Your task to perform on an android device: install app "Mercado Libre" Image 0: 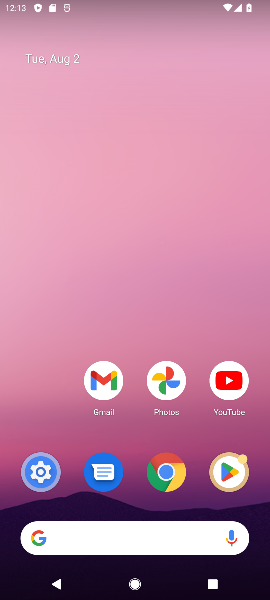
Step 0: click (232, 467)
Your task to perform on an android device: install app "Mercado Libre" Image 1: 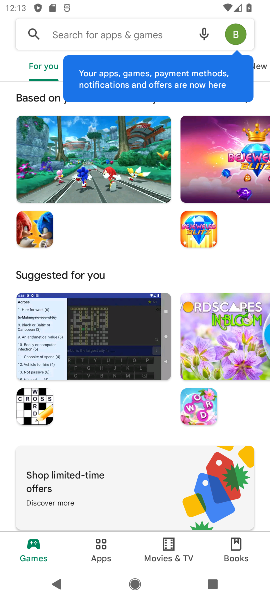
Step 1: click (88, 29)
Your task to perform on an android device: install app "Mercado Libre" Image 2: 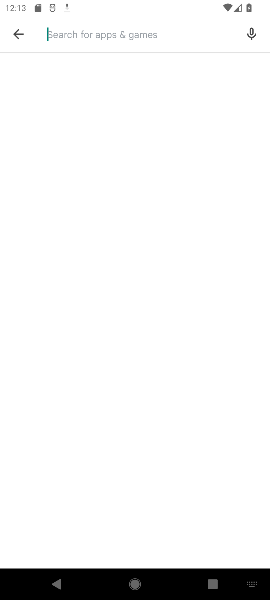
Step 2: type "mercado libre"
Your task to perform on an android device: install app "Mercado Libre" Image 3: 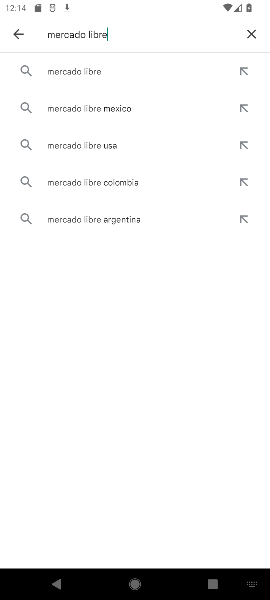
Step 3: click (56, 71)
Your task to perform on an android device: install app "Mercado Libre" Image 4: 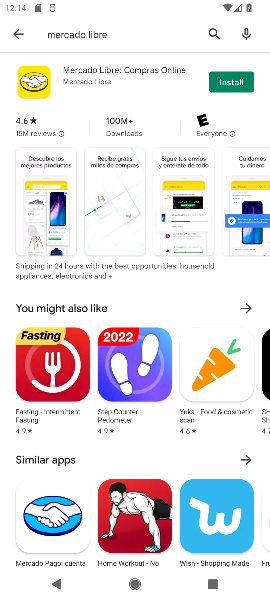
Step 4: click (106, 80)
Your task to perform on an android device: install app "Mercado Libre" Image 5: 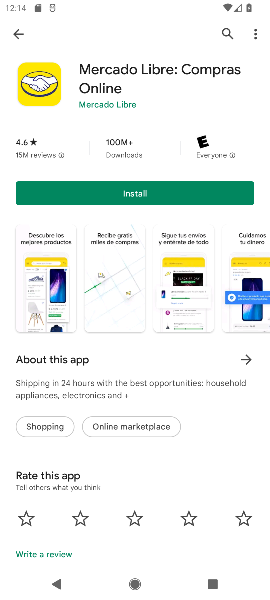
Step 5: click (130, 194)
Your task to perform on an android device: install app "Mercado Libre" Image 6: 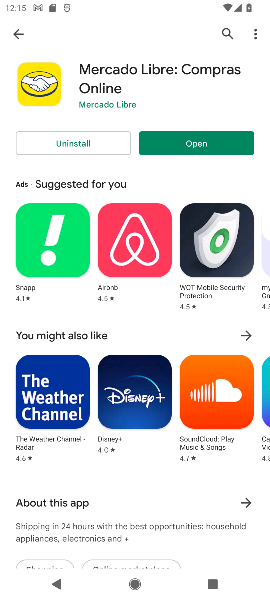
Step 6: task complete